Your task to perform on an android device: open sync settings in chrome Image 0: 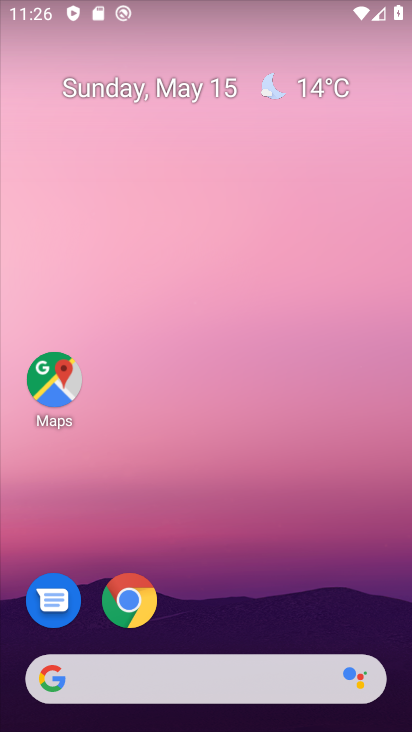
Step 0: click (131, 597)
Your task to perform on an android device: open sync settings in chrome Image 1: 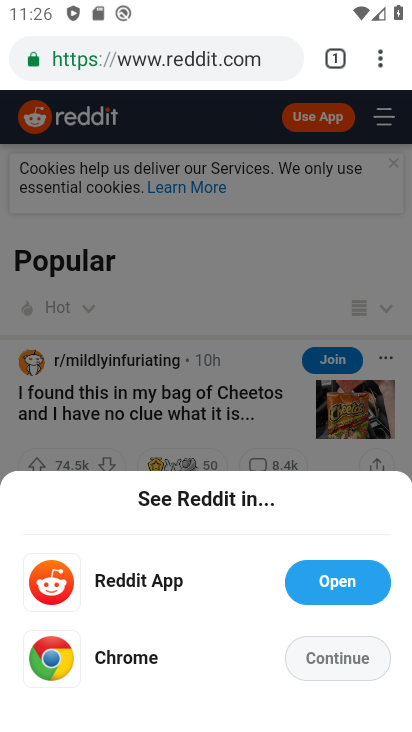
Step 1: click (382, 61)
Your task to perform on an android device: open sync settings in chrome Image 2: 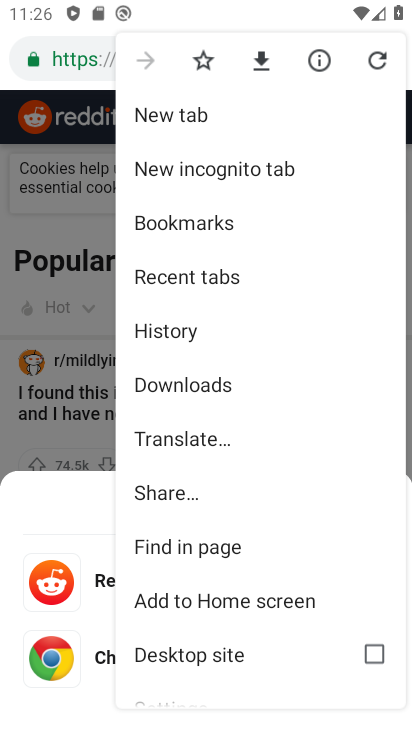
Step 2: drag from (286, 573) to (294, 212)
Your task to perform on an android device: open sync settings in chrome Image 3: 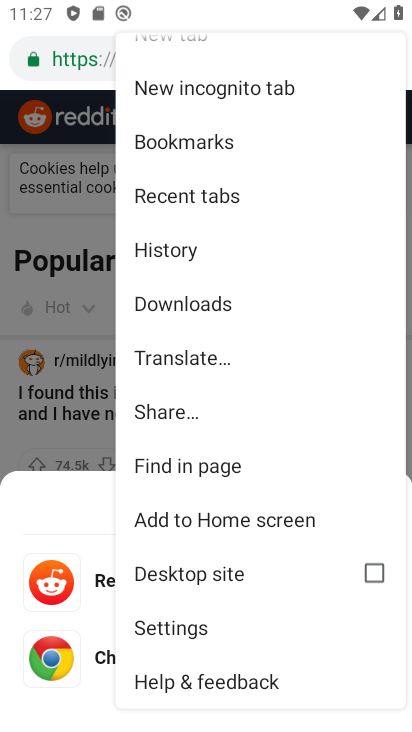
Step 3: click (175, 626)
Your task to perform on an android device: open sync settings in chrome Image 4: 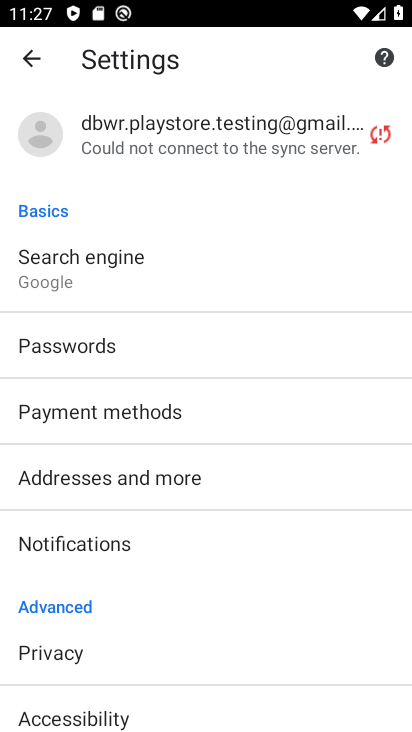
Step 4: click (140, 126)
Your task to perform on an android device: open sync settings in chrome Image 5: 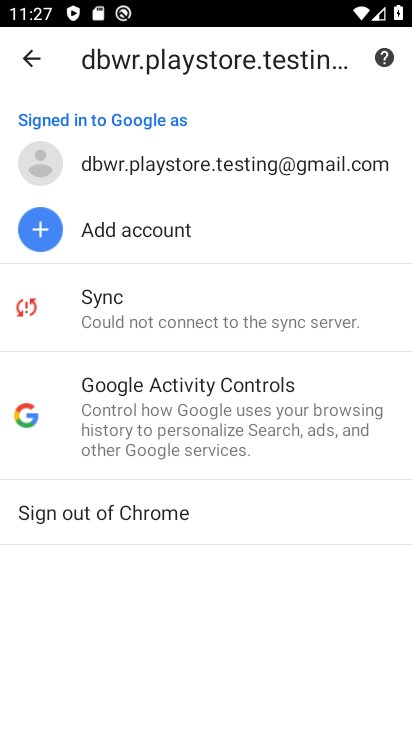
Step 5: click (113, 312)
Your task to perform on an android device: open sync settings in chrome Image 6: 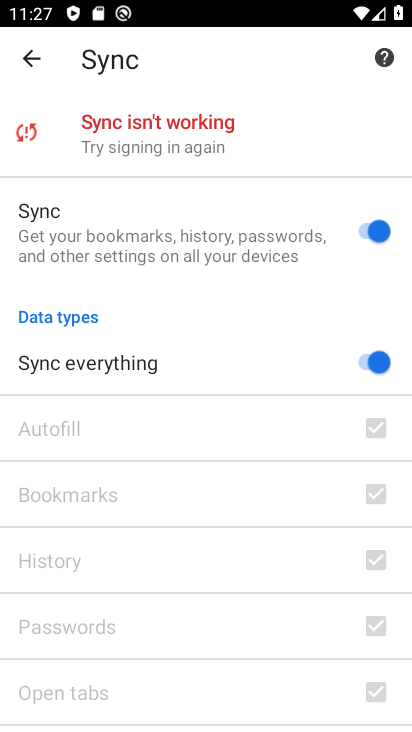
Step 6: task complete